Your task to perform on an android device: Clear the shopping cart on walmart.com. Image 0: 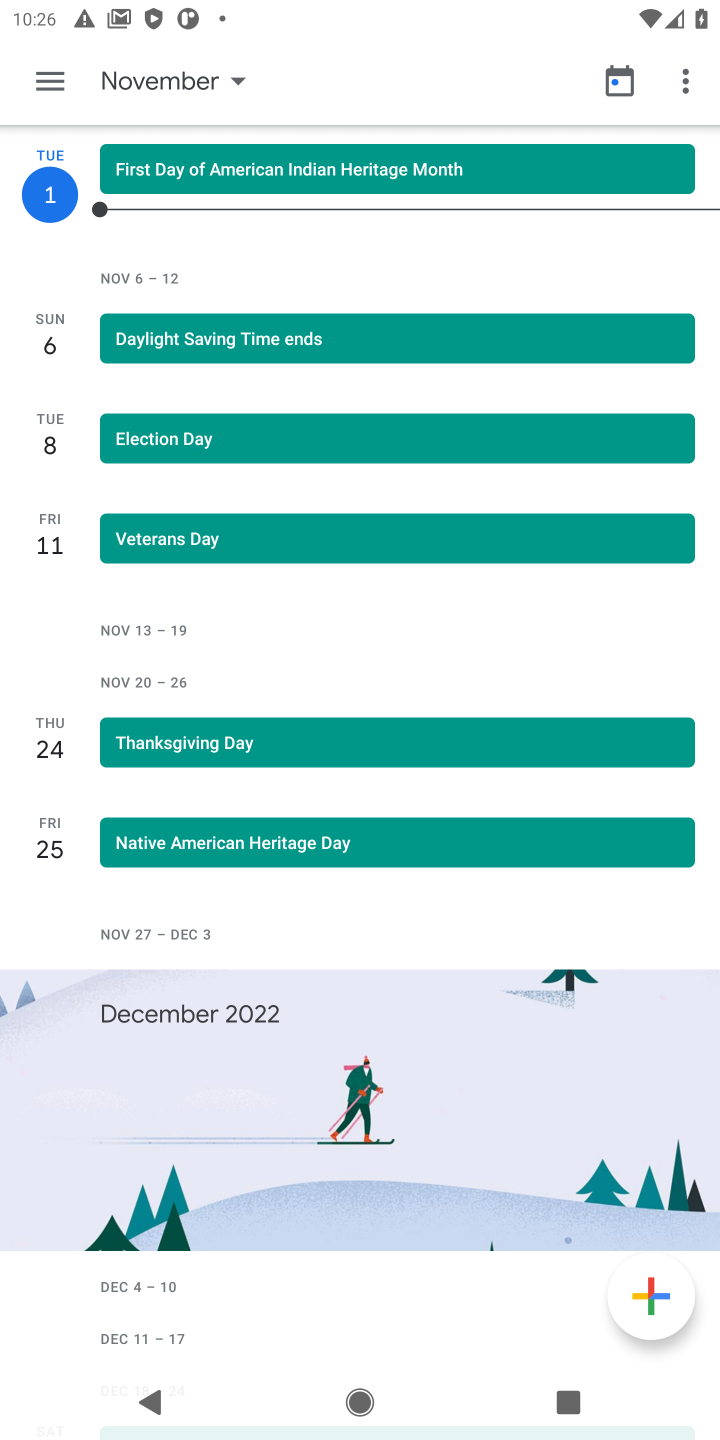
Step 0: press home button
Your task to perform on an android device: Clear the shopping cart on walmart.com. Image 1: 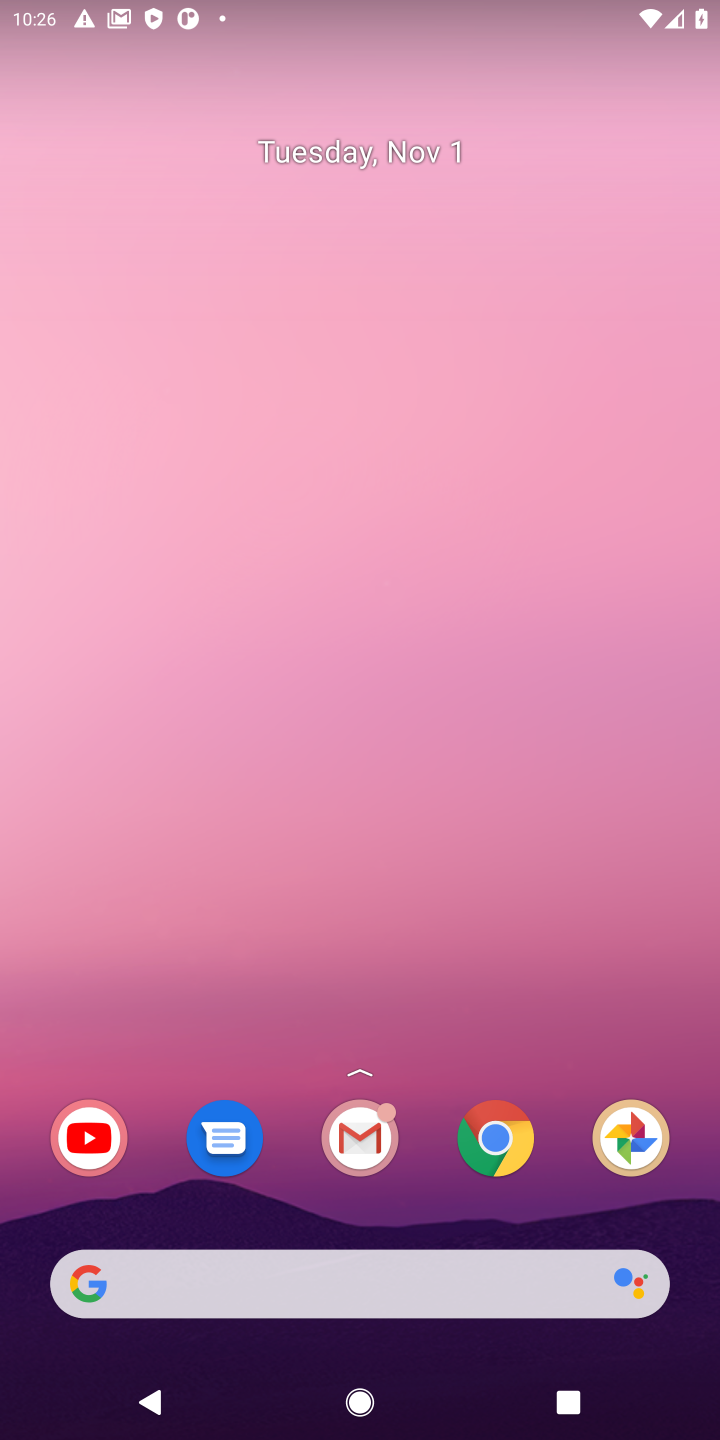
Step 1: click (505, 1148)
Your task to perform on an android device: Clear the shopping cart on walmart.com. Image 2: 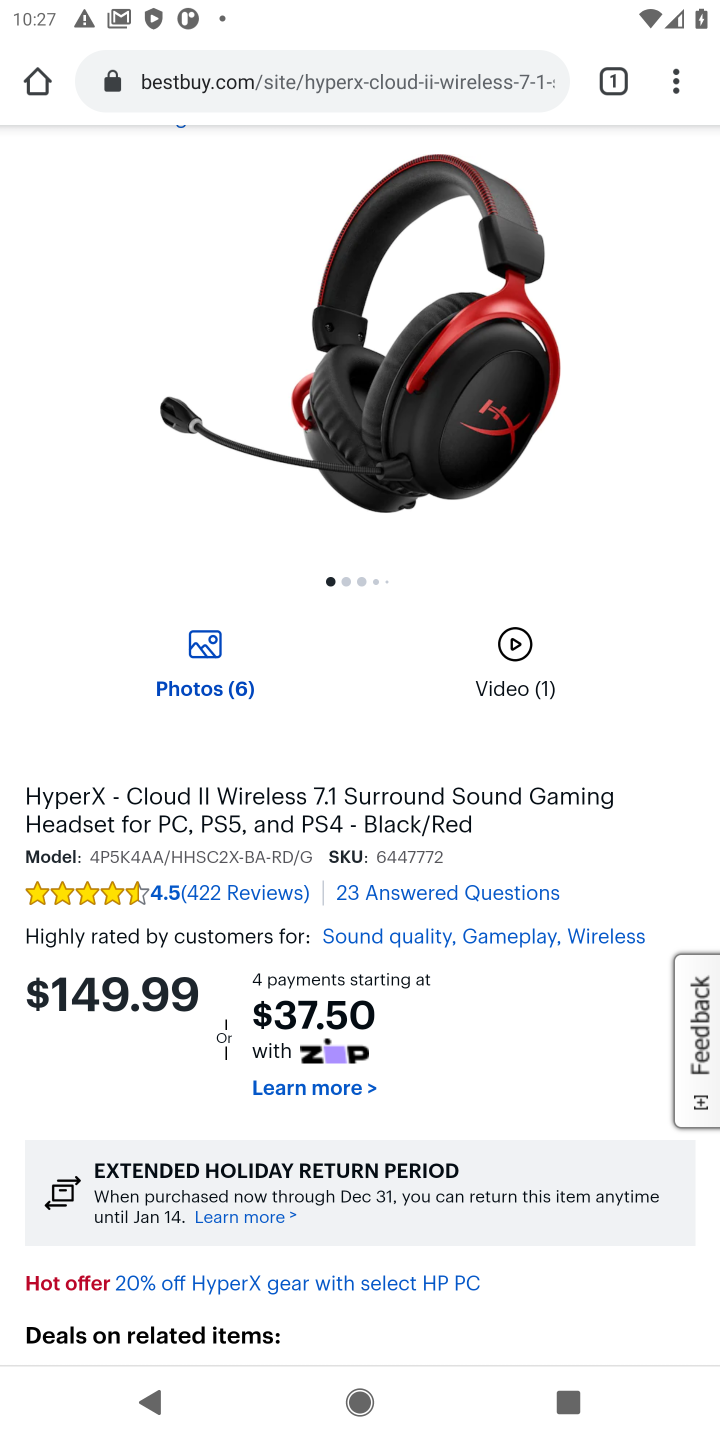
Step 2: click (228, 88)
Your task to perform on an android device: Clear the shopping cart on walmart.com. Image 3: 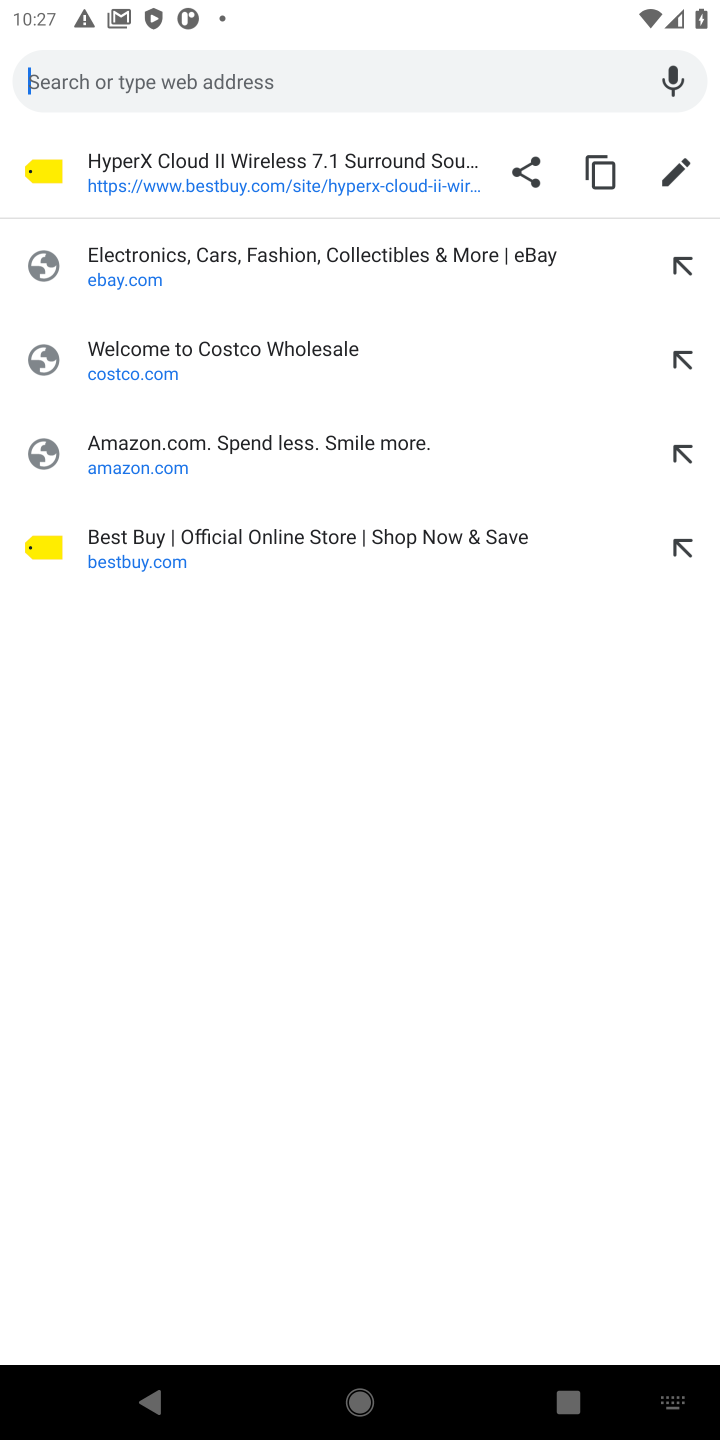
Step 3: type "walmart.com"
Your task to perform on an android device: Clear the shopping cart on walmart.com. Image 4: 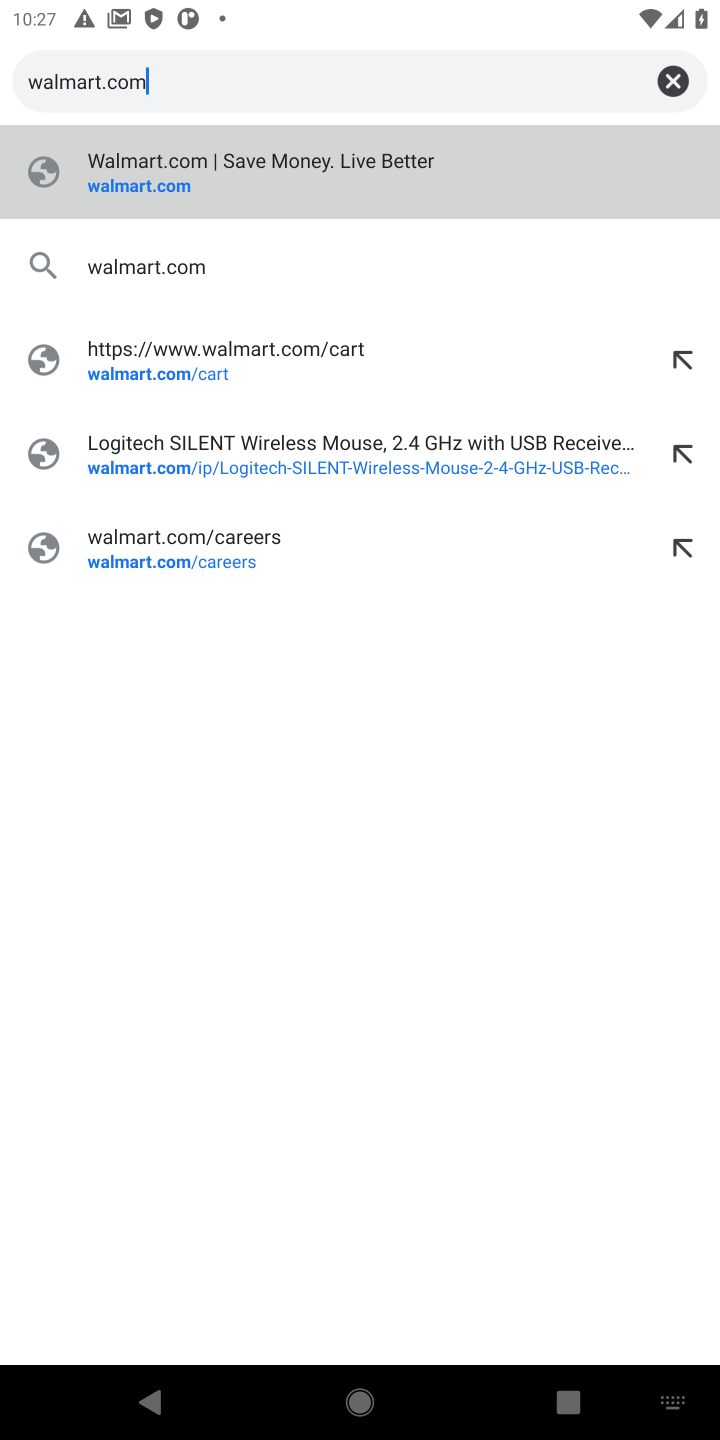
Step 4: click (159, 186)
Your task to perform on an android device: Clear the shopping cart on walmart.com. Image 5: 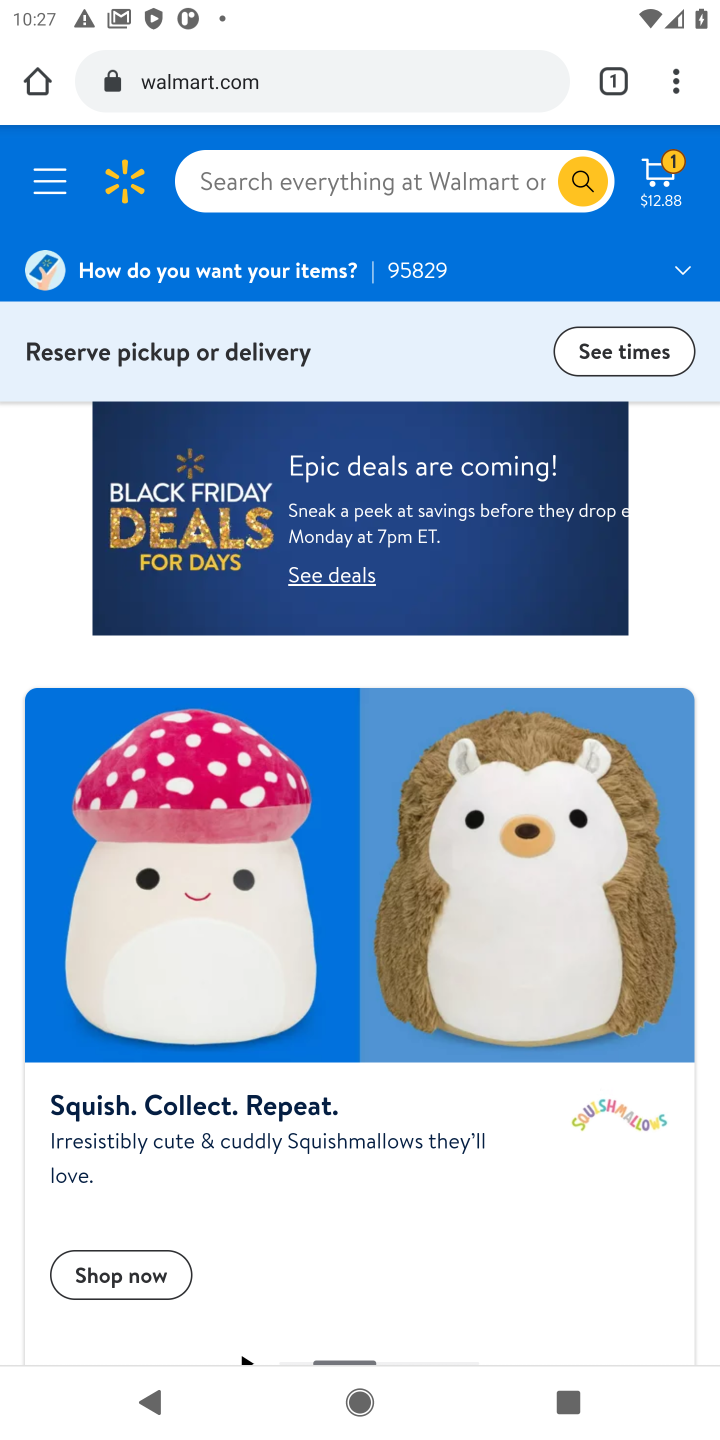
Step 5: click (647, 178)
Your task to perform on an android device: Clear the shopping cart on walmart.com. Image 6: 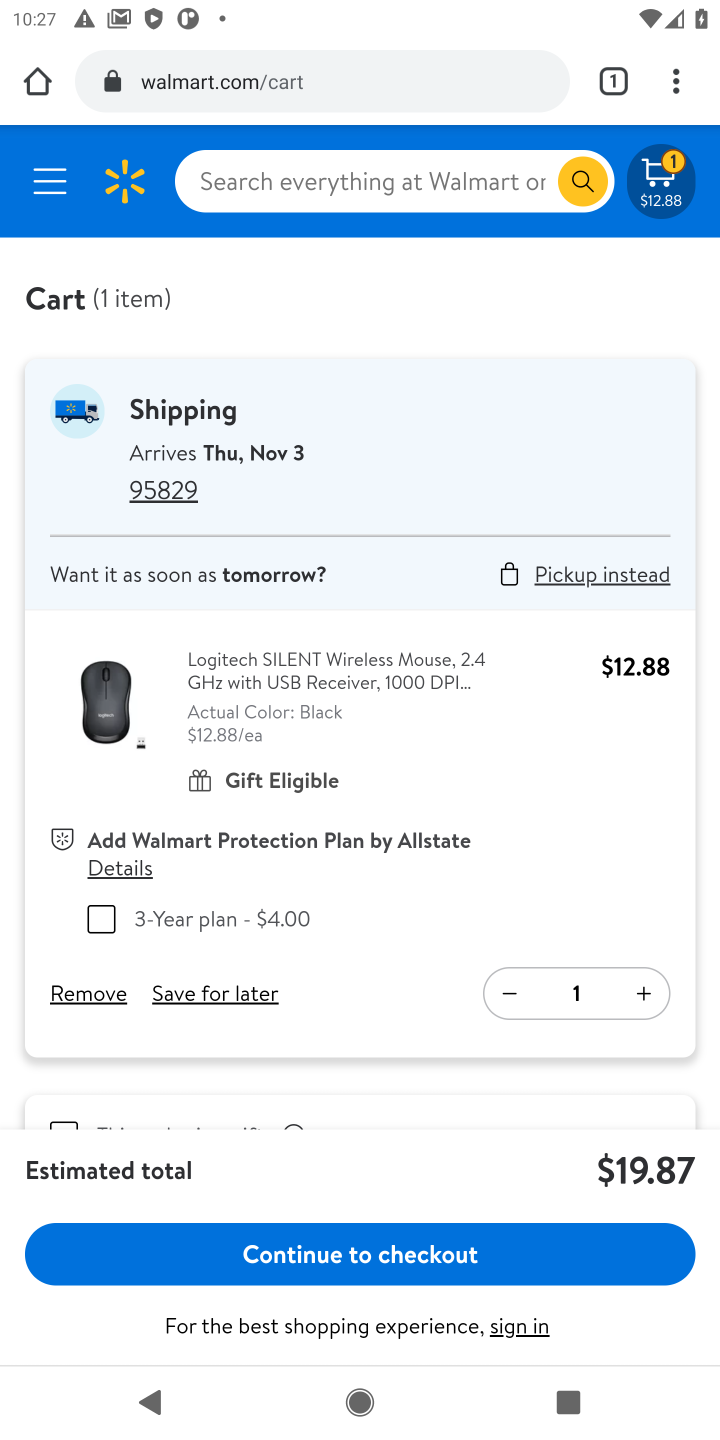
Step 6: click (89, 1002)
Your task to perform on an android device: Clear the shopping cart on walmart.com. Image 7: 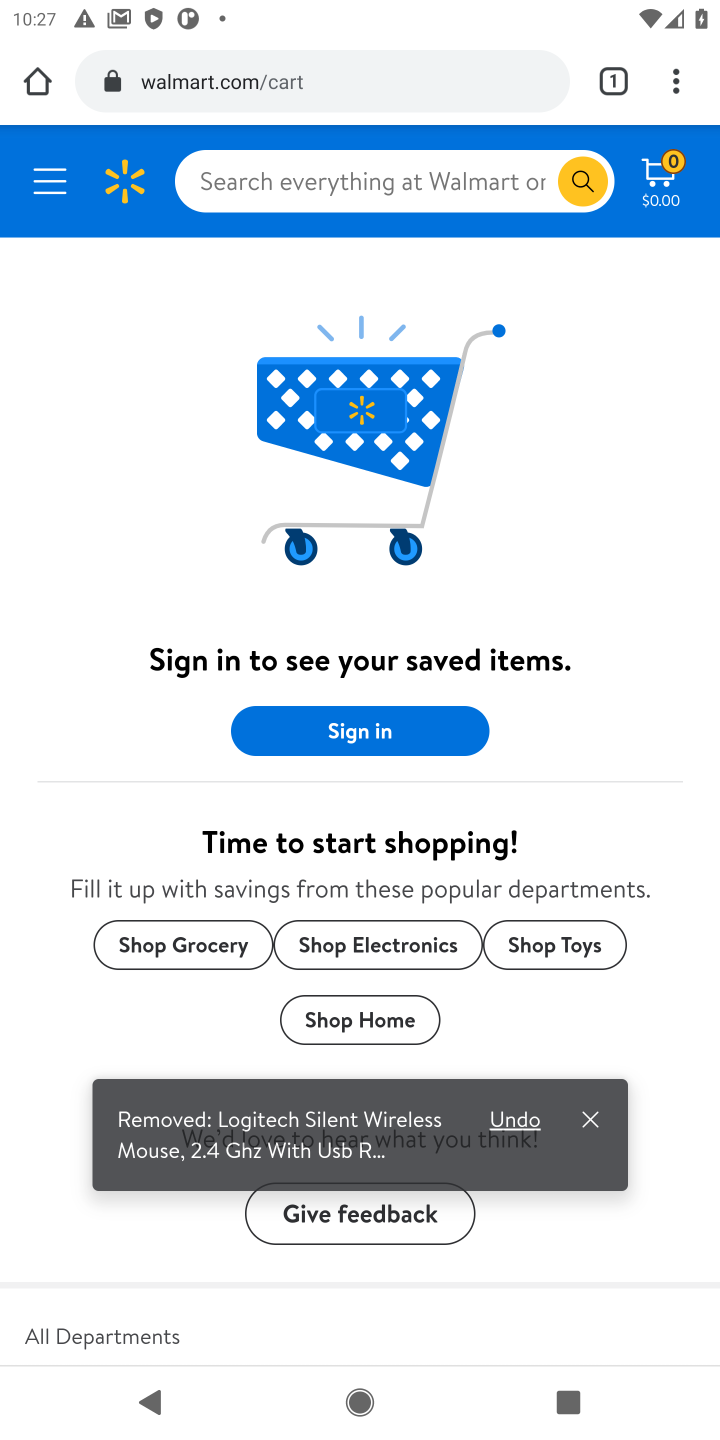
Step 7: task complete